Your task to perform on an android device: turn notification dots off Image 0: 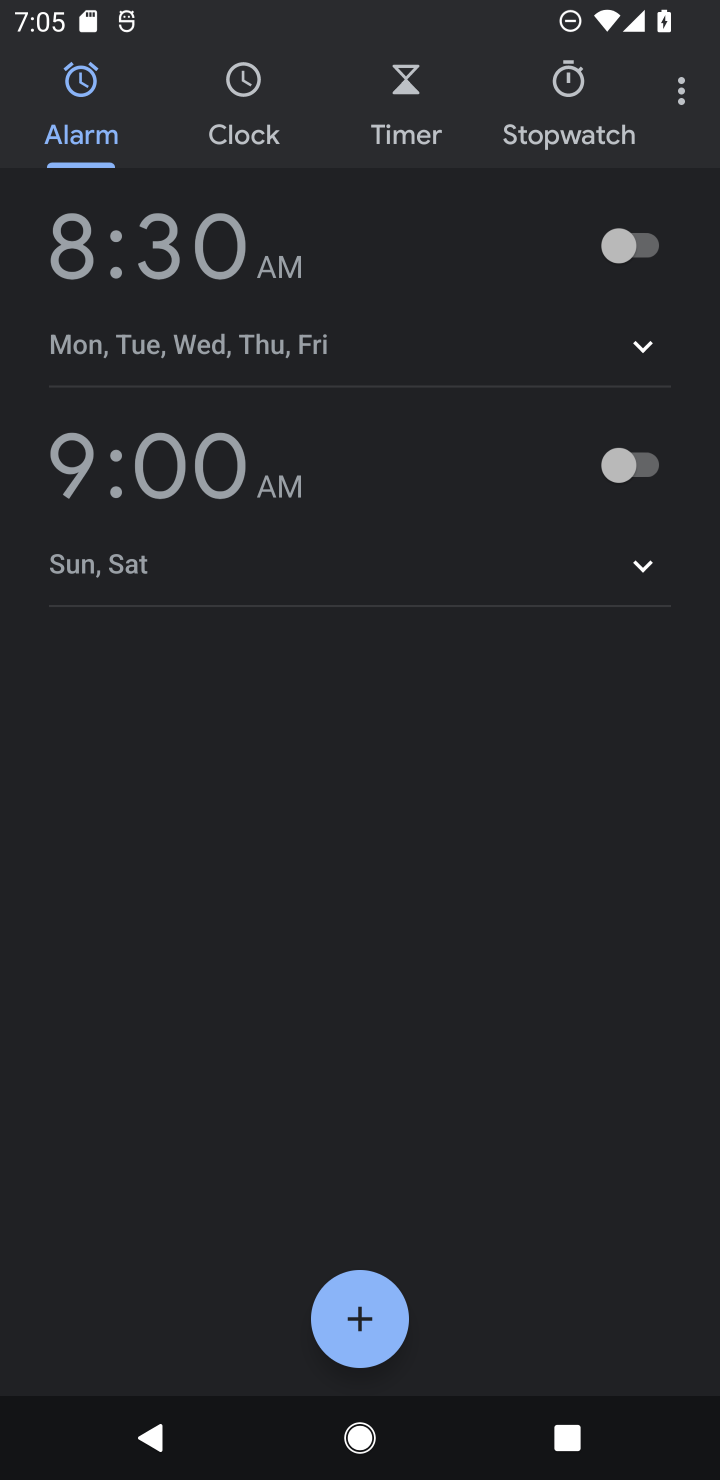
Step 0: press home button
Your task to perform on an android device: turn notification dots off Image 1: 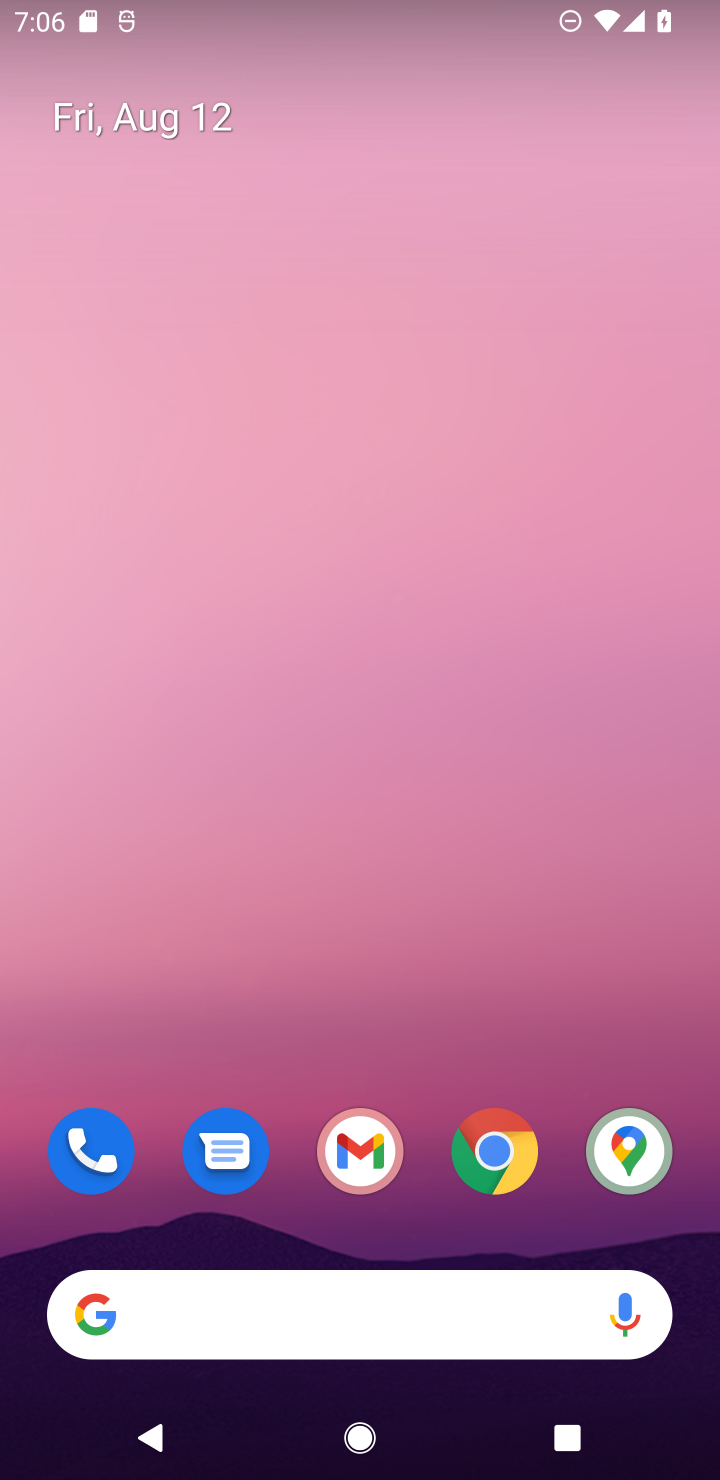
Step 1: drag from (561, 1203) to (433, 204)
Your task to perform on an android device: turn notification dots off Image 2: 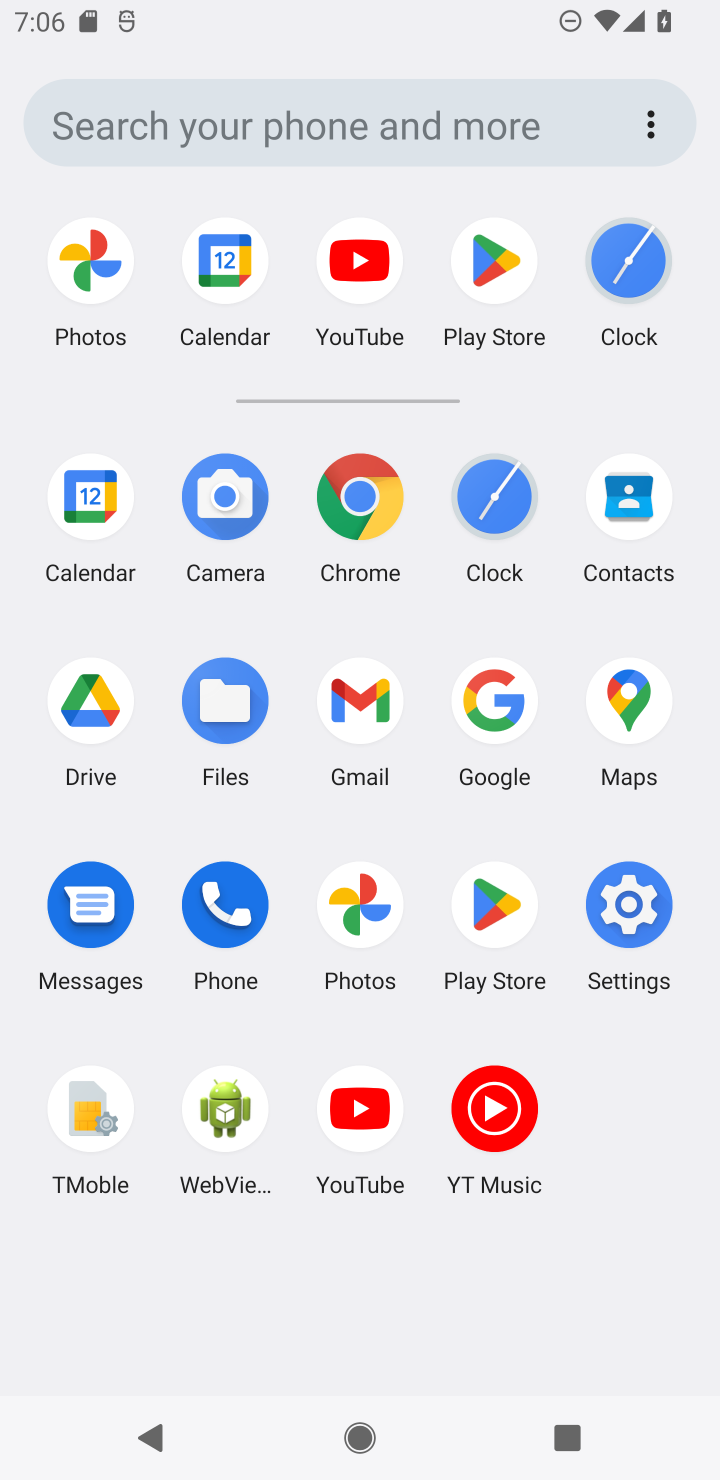
Step 2: click (638, 897)
Your task to perform on an android device: turn notification dots off Image 3: 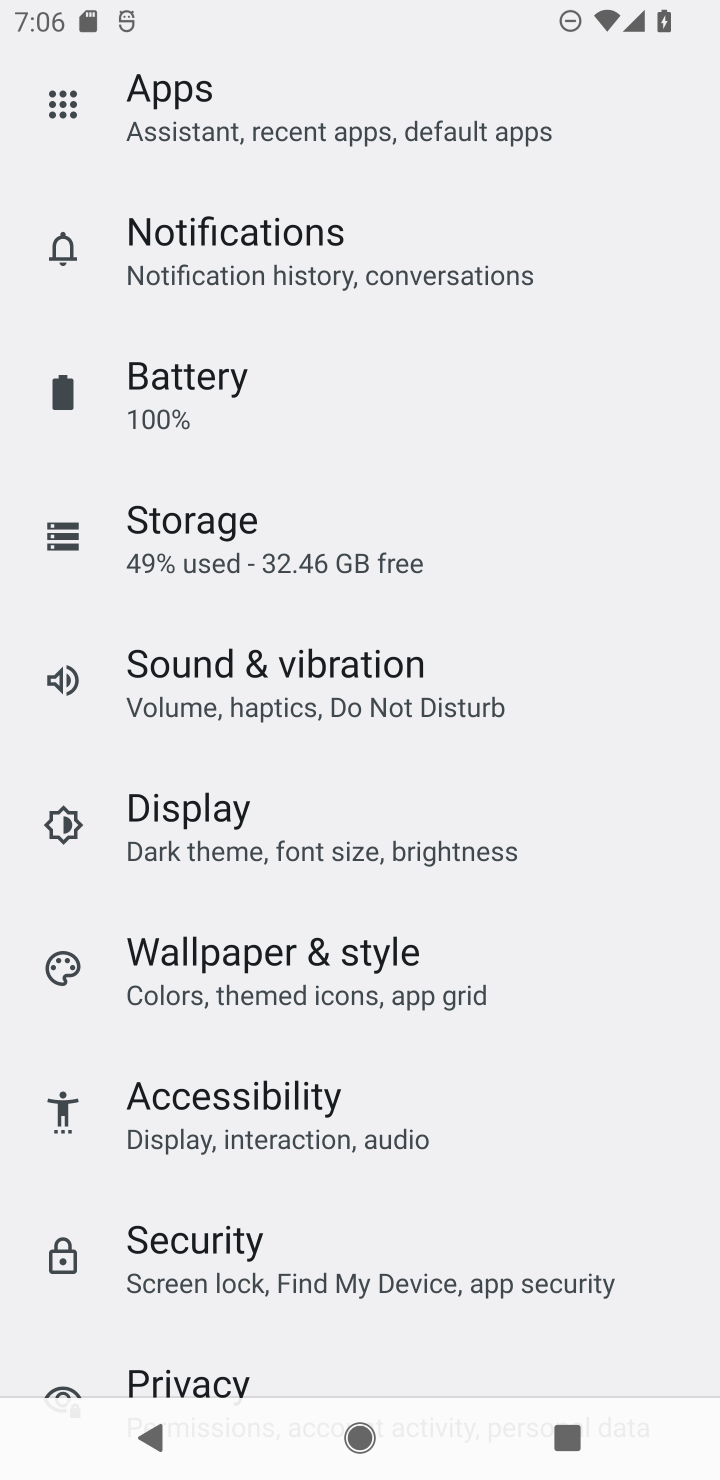
Step 3: click (330, 246)
Your task to perform on an android device: turn notification dots off Image 4: 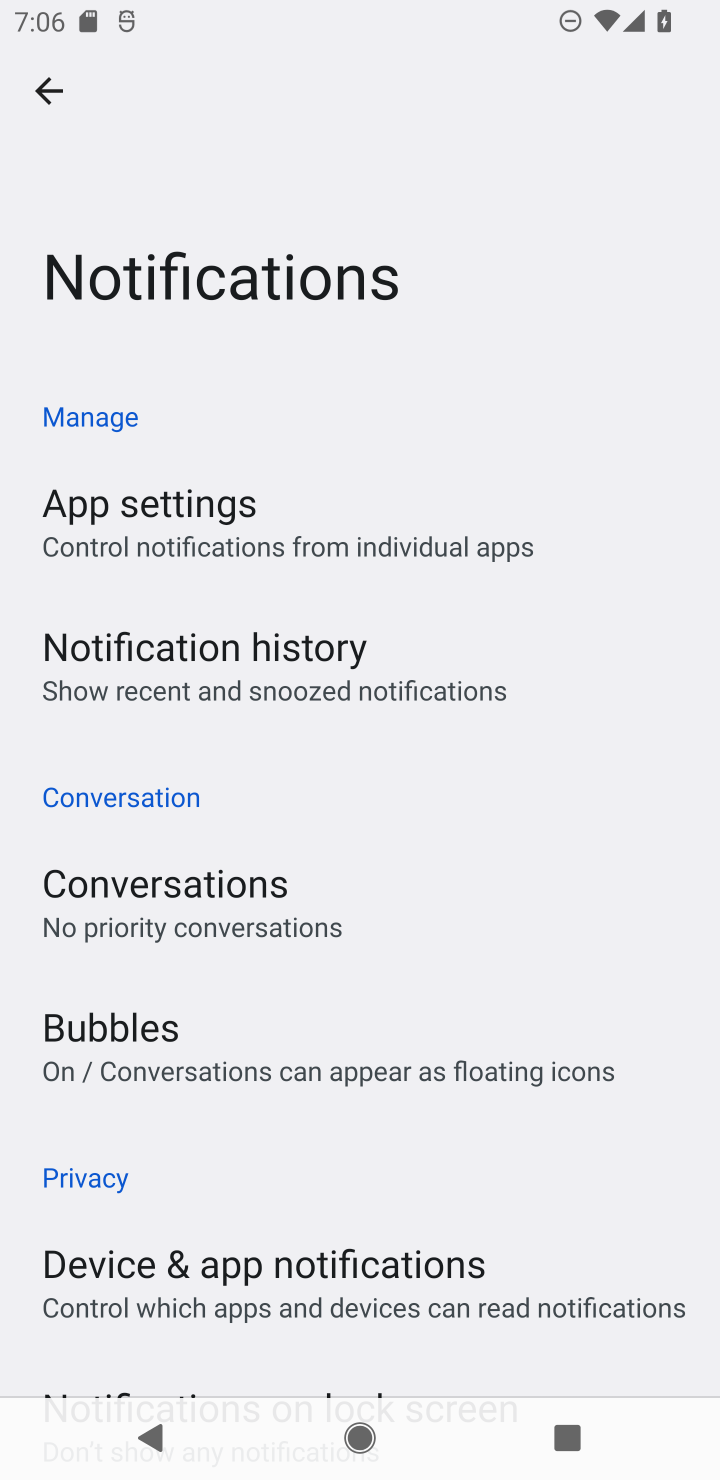
Step 4: task complete